Your task to perform on an android device: search for starred emails in the gmail app Image 0: 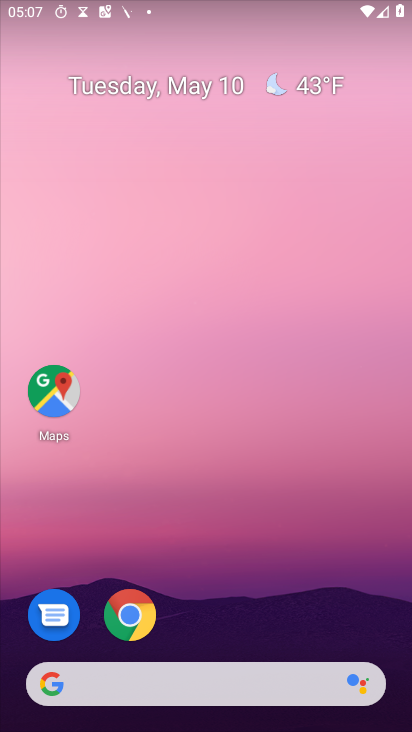
Step 0: drag from (305, 643) to (336, 123)
Your task to perform on an android device: search for starred emails in the gmail app Image 1: 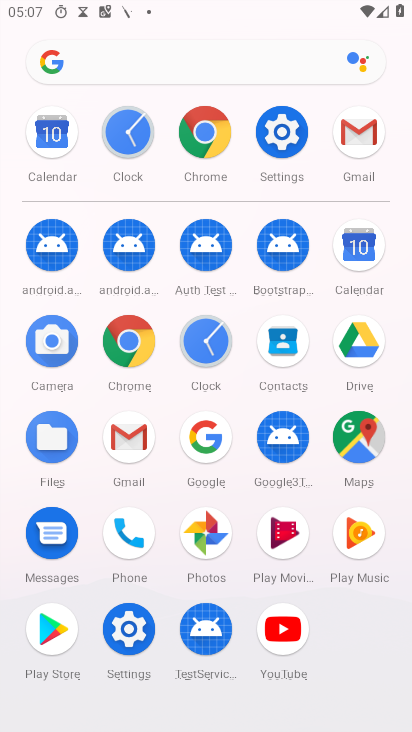
Step 1: click (125, 439)
Your task to perform on an android device: search for starred emails in the gmail app Image 2: 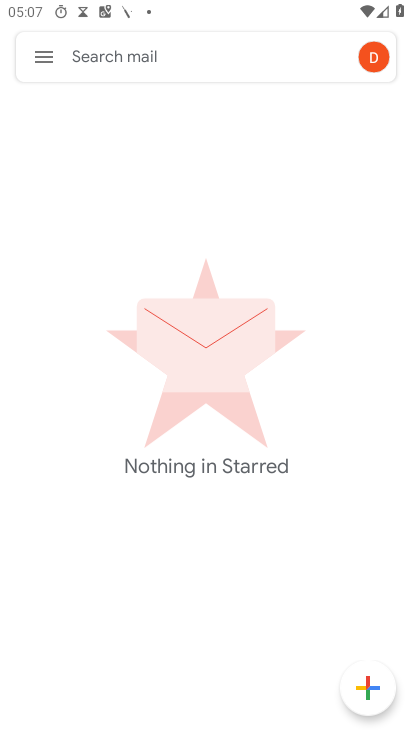
Step 2: click (43, 49)
Your task to perform on an android device: search for starred emails in the gmail app Image 3: 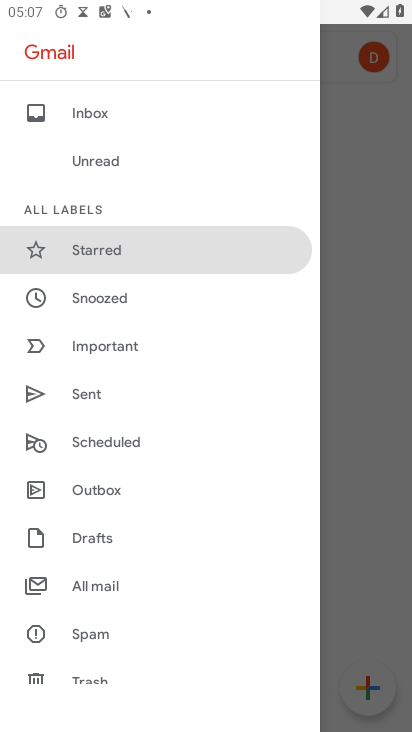
Step 3: click (99, 253)
Your task to perform on an android device: search for starred emails in the gmail app Image 4: 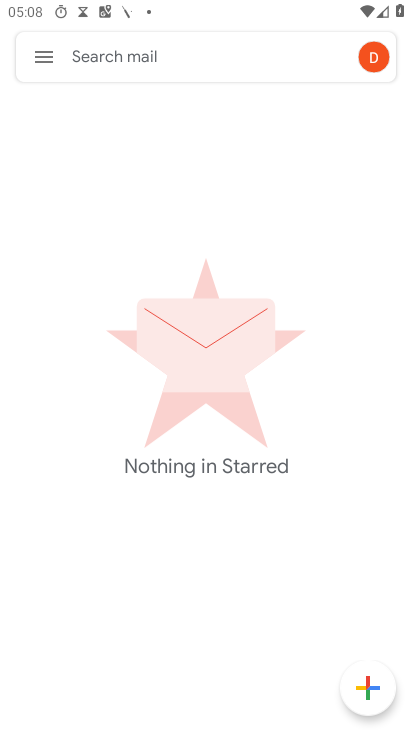
Step 4: task complete